Your task to perform on an android device: Open battery settings Image 0: 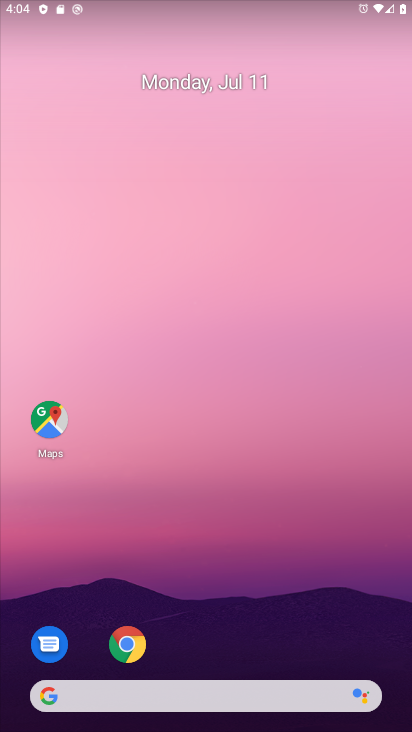
Step 0: drag from (248, 642) to (199, 143)
Your task to perform on an android device: Open battery settings Image 1: 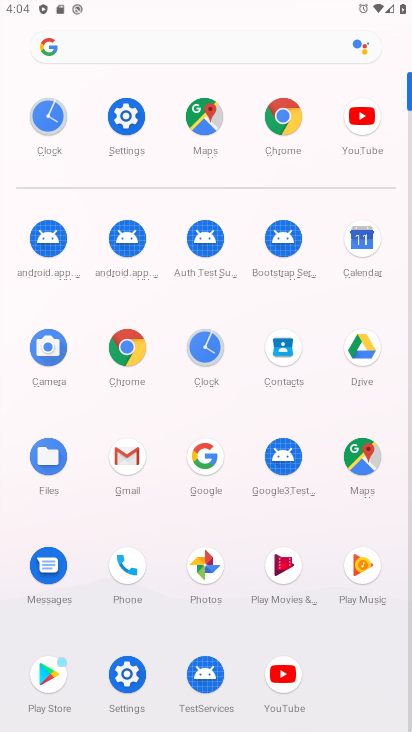
Step 1: click (128, 127)
Your task to perform on an android device: Open battery settings Image 2: 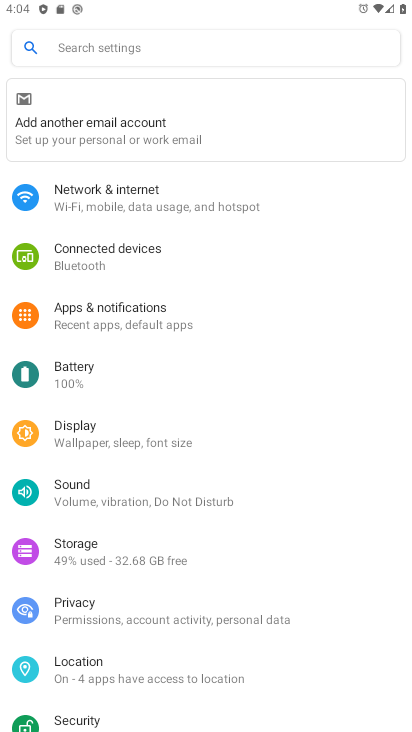
Step 2: click (89, 388)
Your task to perform on an android device: Open battery settings Image 3: 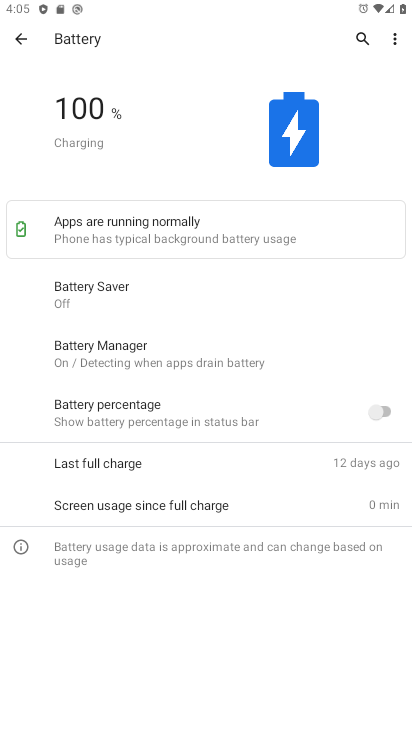
Step 3: click (394, 40)
Your task to perform on an android device: Open battery settings Image 4: 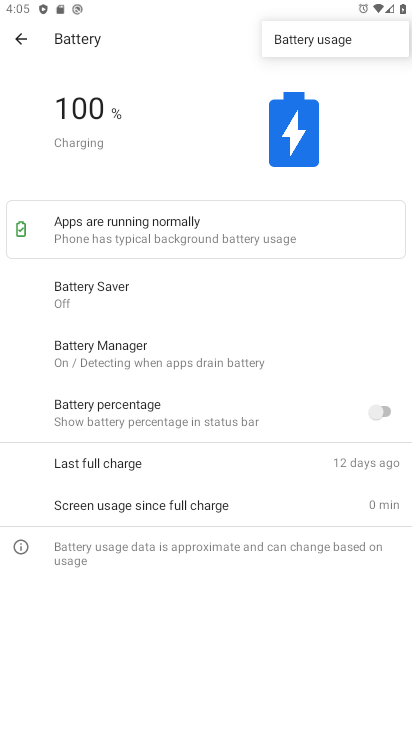
Step 4: click (203, 72)
Your task to perform on an android device: Open battery settings Image 5: 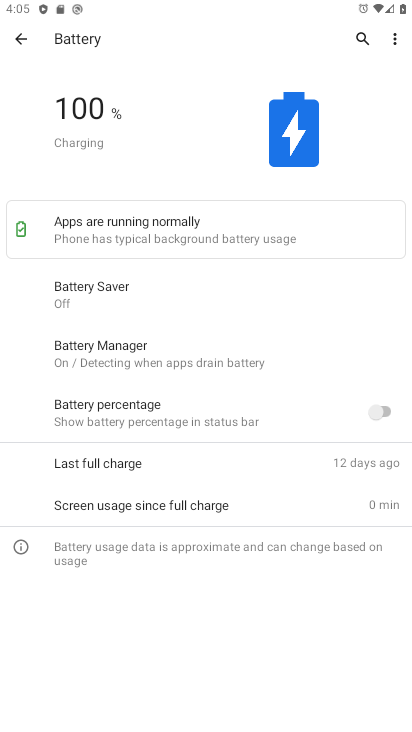
Step 5: task complete